Your task to perform on an android device: open device folders in google photos Image 0: 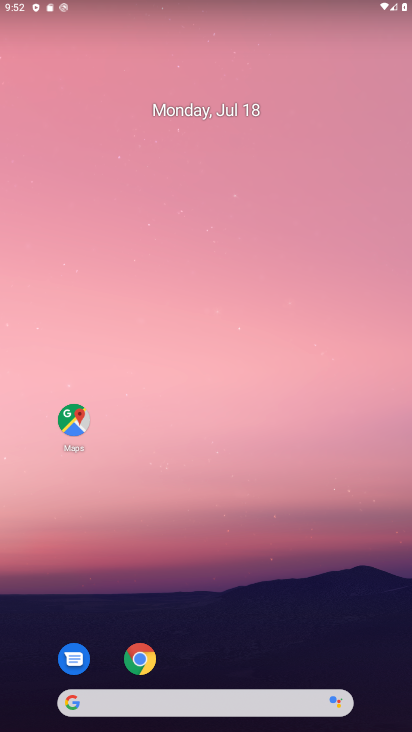
Step 0: drag from (304, 655) to (271, 413)
Your task to perform on an android device: open device folders in google photos Image 1: 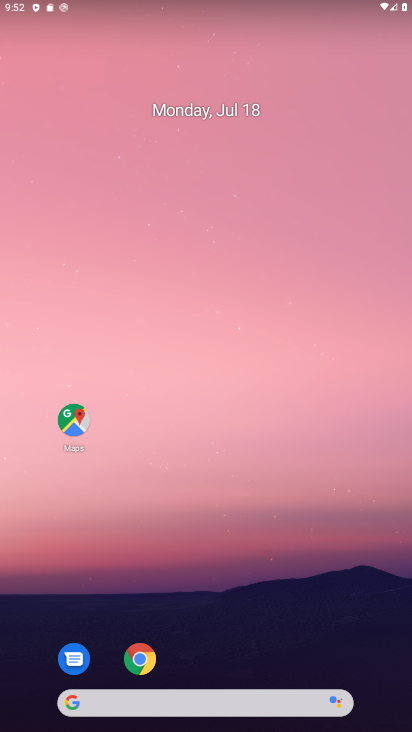
Step 1: drag from (252, 618) to (216, 111)
Your task to perform on an android device: open device folders in google photos Image 2: 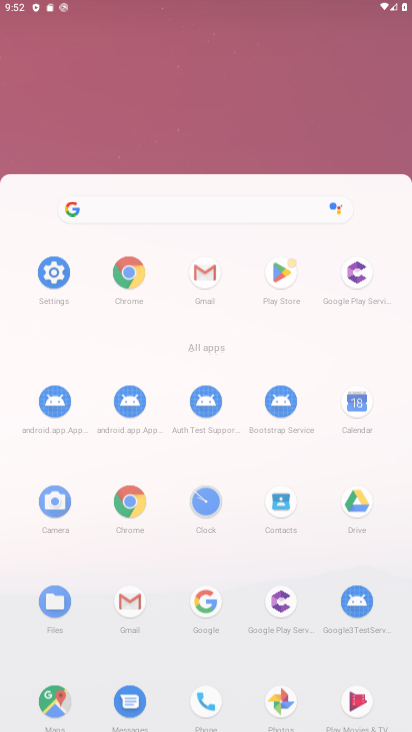
Step 2: drag from (222, 501) to (167, 88)
Your task to perform on an android device: open device folders in google photos Image 3: 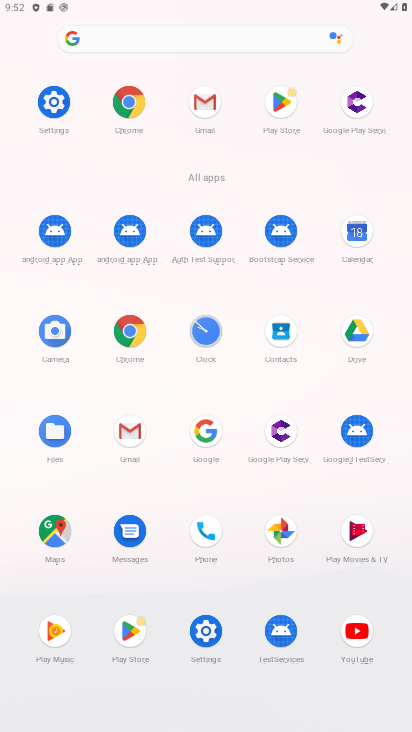
Step 3: drag from (159, 223) to (159, 76)
Your task to perform on an android device: open device folders in google photos Image 4: 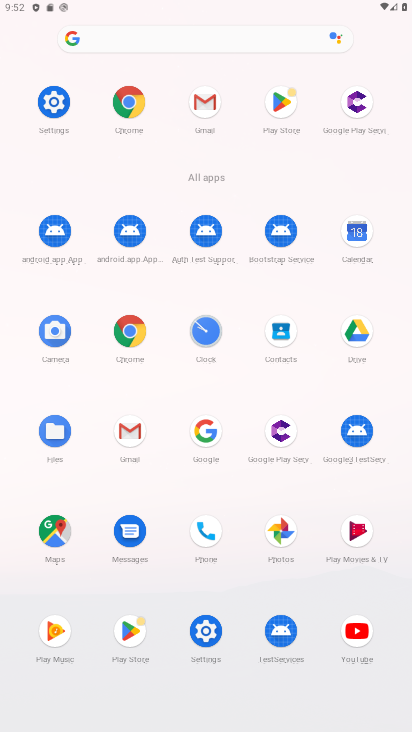
Step 4: click (278, 532)
Your task to perform on an android device: open device folders in google photos Image 5: 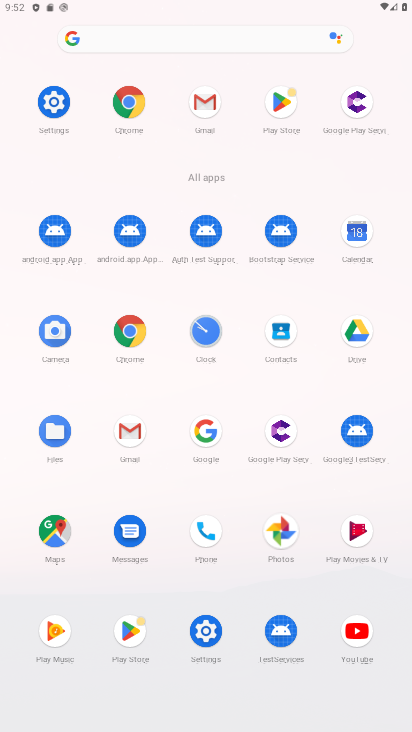
Step 5: click (282, 532)
Your task to perform on an android device: open device folders in google photos Image 6: 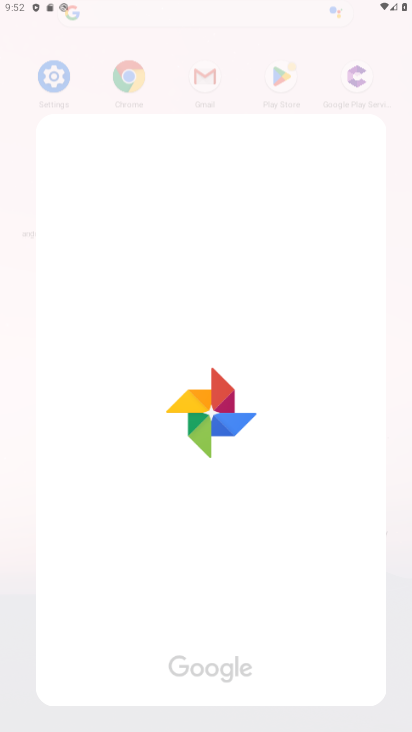
Step 6: click (283, 532)
Your task to perform on an android device: open device folders in google photos Image 7: 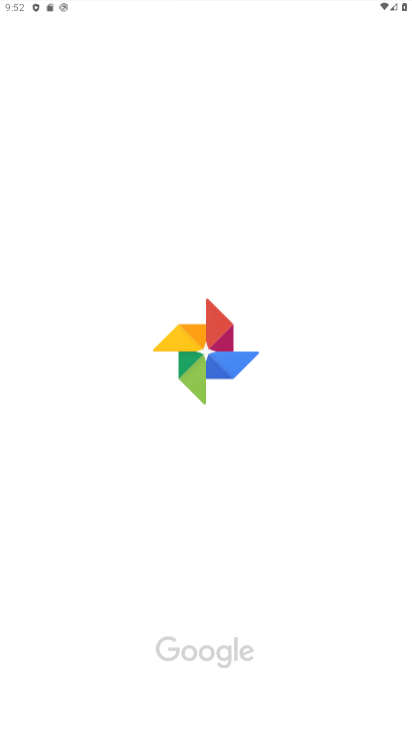
Step 7: click (286, 522)
Your task to perform on an android device: open device folders in google photos Image 8: 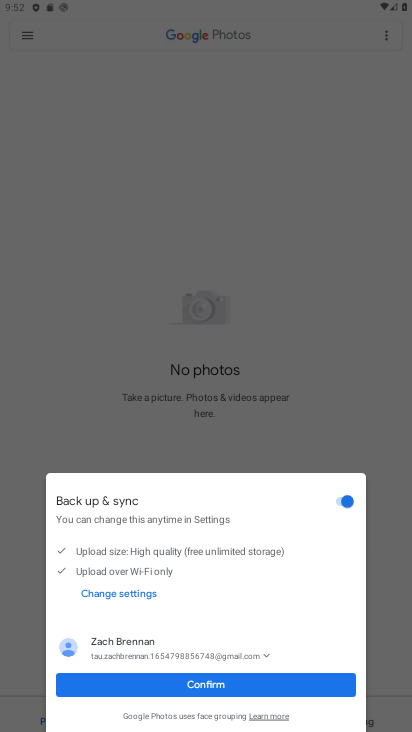
Step 8: click (198, 179)
Your task to perform on an android device: open device folders in google photos Image 9: 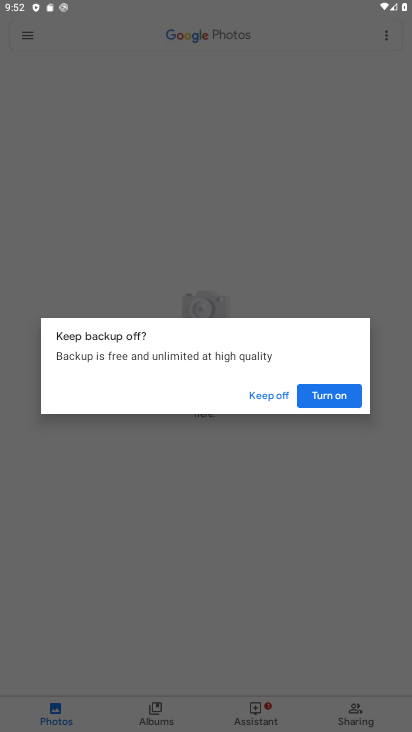
Step 9: click (343, 389)
Your task to perform on an android device: open device folders in google photos Image 10: 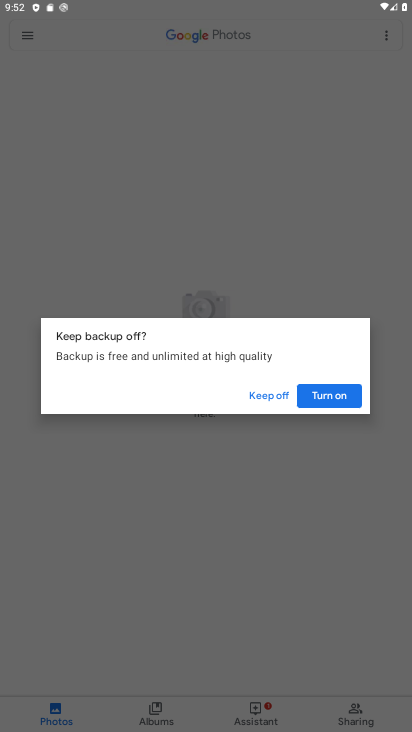
Step 10: click (342, 396)
Your task to perform on an android device: open device folders in google photos Image 11: 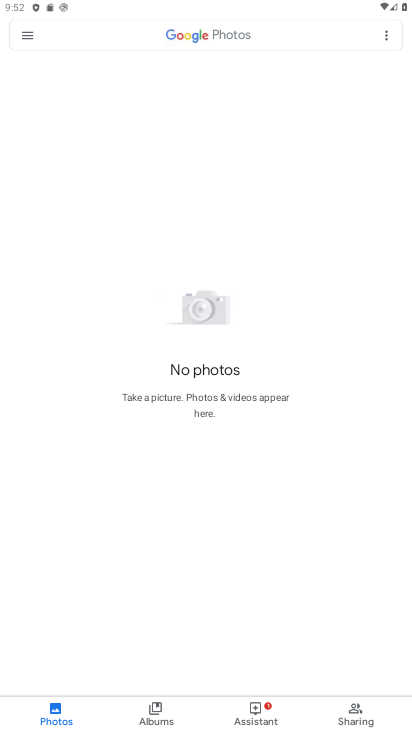
Step 11: click (343, 398)
Your task to perform on an android device: open device folders in google photos Image 12: 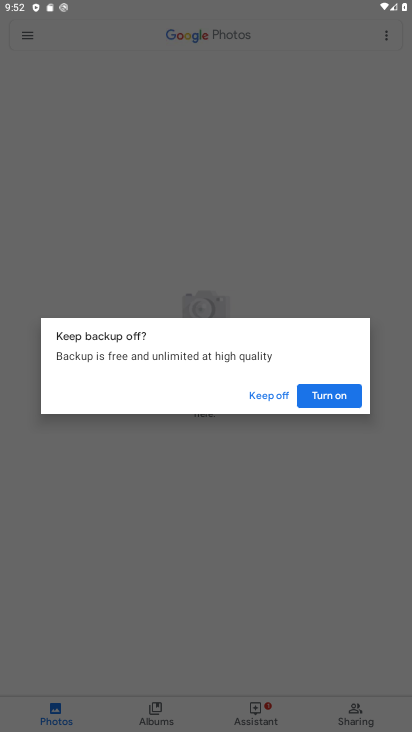
Step 12: click (327, 389)
Your task to perform on an android device: open device folders in google photos Image 13: 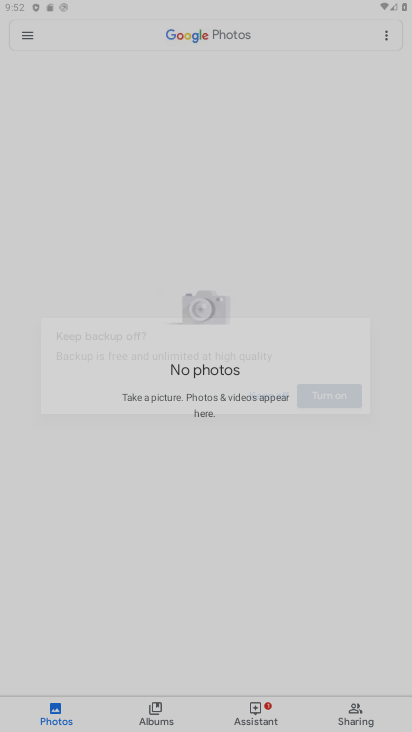
Step 13: click (331, 392)
Your task to perform on an android device: open device folders in google photos Image 14: 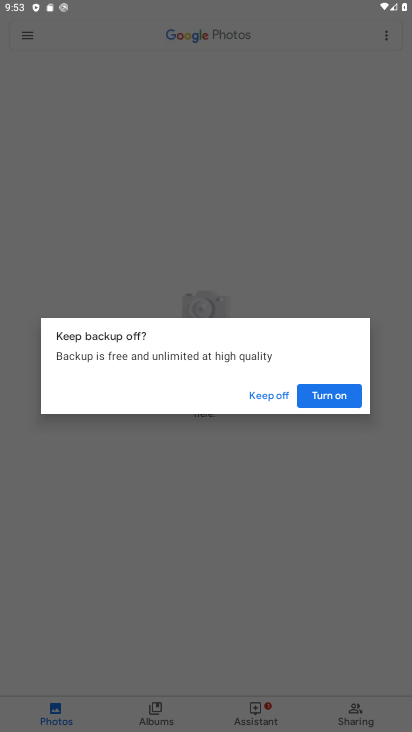
Step 14: press back button
Your task to perform on an android device: open device folders in google photos Image 15: 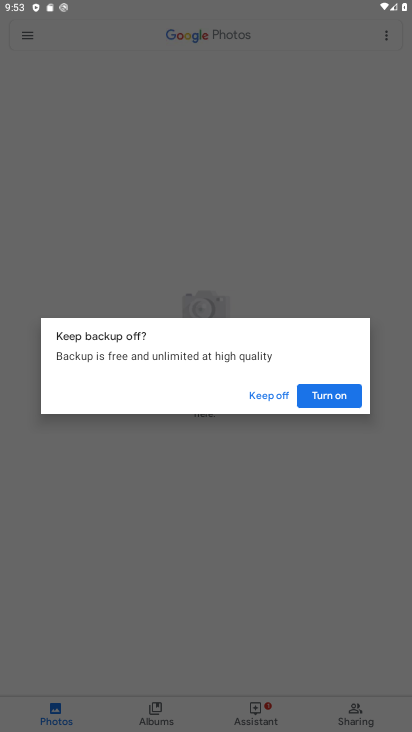
Step 15: click (333, 394)
Your task to perform on an android device: open device folders in google photos Image 16: 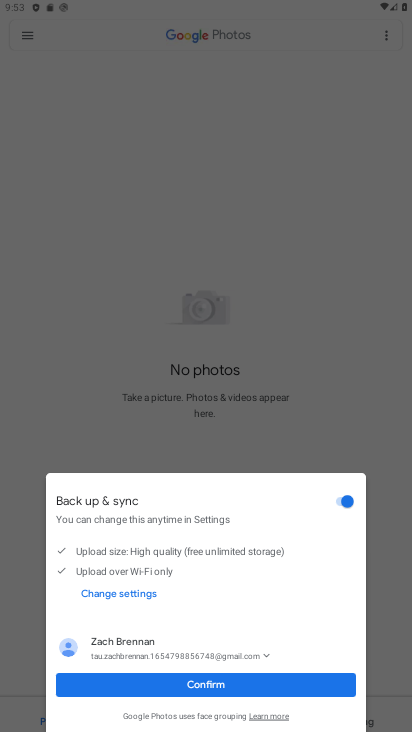
Step 16: drag from (35, 34) to (88, 252)
Your task to perform on an android device: open device folders in google photos Image 17: 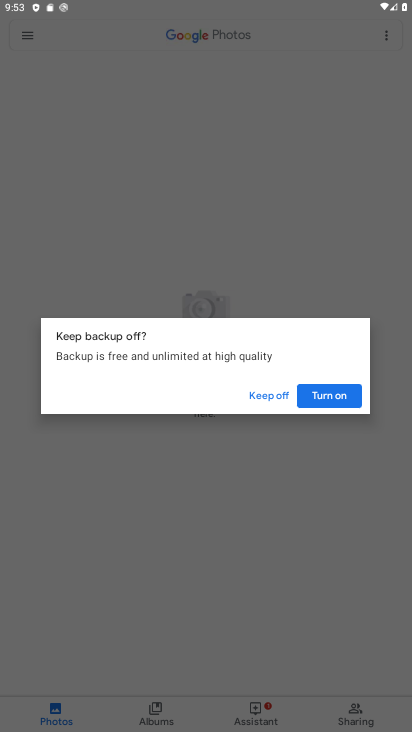
Step 17: click (185, 694)
Your task to perform on an android device: open device folders in google photos Image 18: 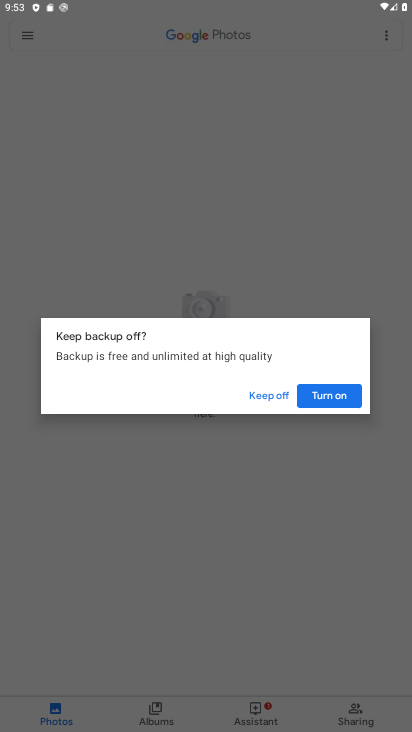
Step 18: click (260, 380)
Your task to perform on an android device: open device folders in google photos Image 19: 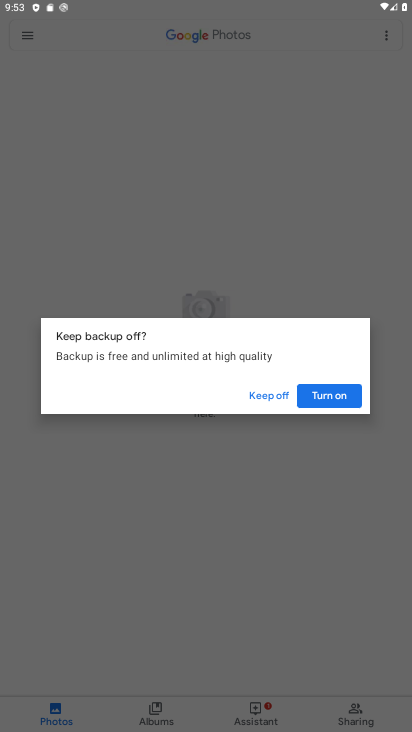
Step 19: click (259, 389)
Your task to perform on an android device: open device folders in google photos Image 20: 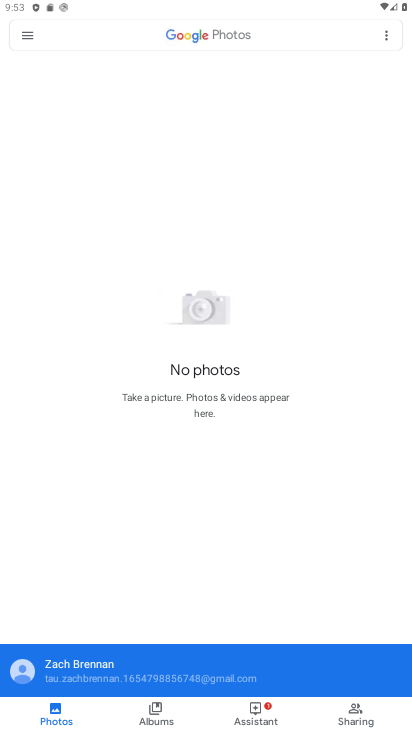
Step 20: drag from (22, 29) to (155, 445)
Your task to perform on an android device: open device folders in google photos Image 21: 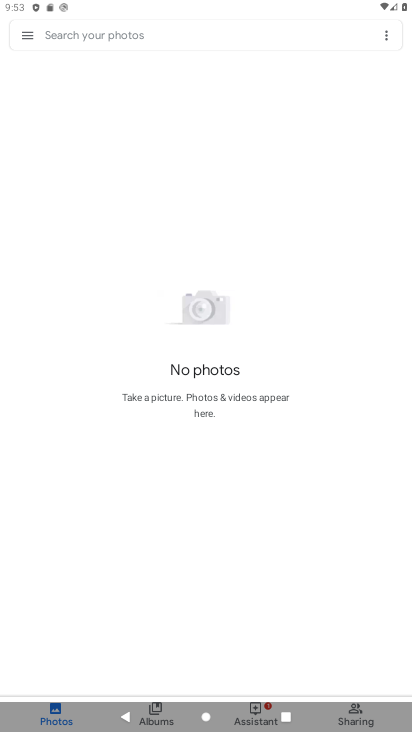
Step 21: drag from (31, 37) to (133, 369)
Your task to perform on an android device: open device folders in google photos Image 22: 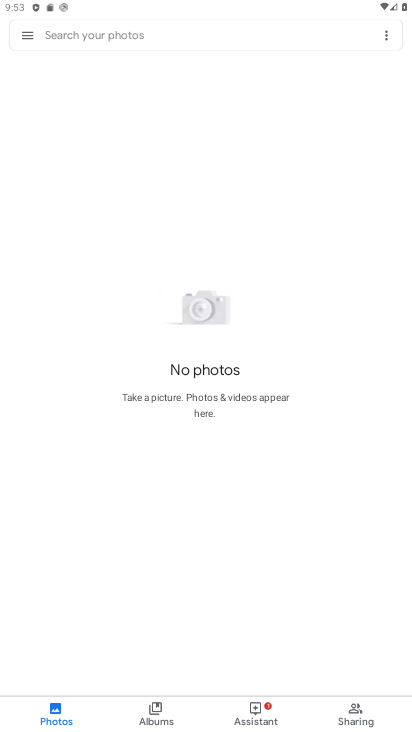
Step 22: drag from (21, 29) to (114, 230)
Your task to perform on an android device: open device folders in google photos Image 23: 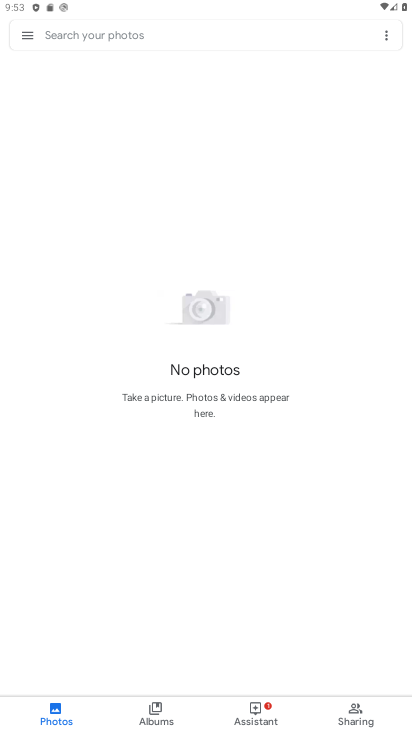
Step 23: drag from (26, 34) to (87, 209)
Your task to perform on an android device: open device folders in google photos Image 24: 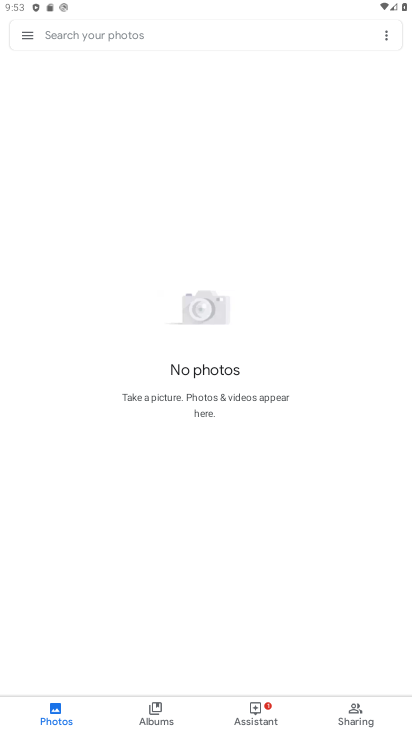
Step 24: click (24, 26)
Your task to perform on an android device: open device folders in google photos Image 25: 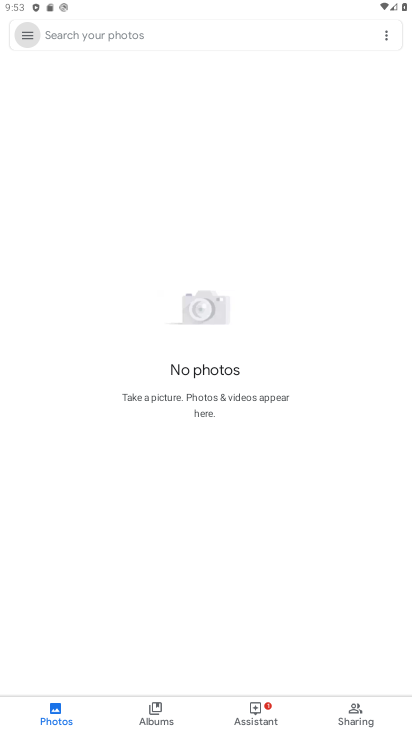
Step 25: click (24, 29)
Your task to perform on an android device: open device folders in google photos Image 26: 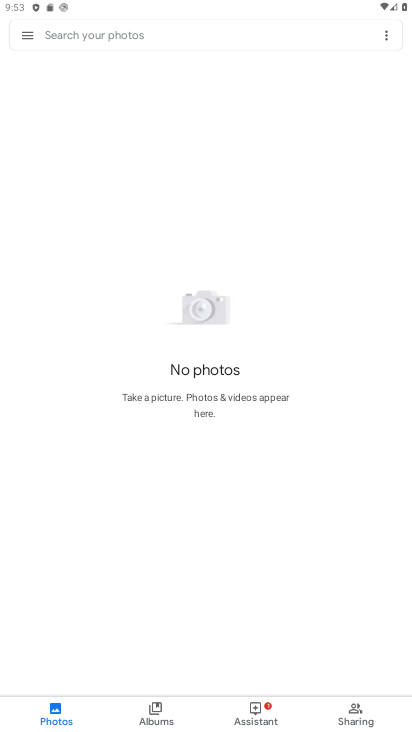
Step 26: click (28, 39)
Your task to perform on an android device: open device folders in google photos Image 27: 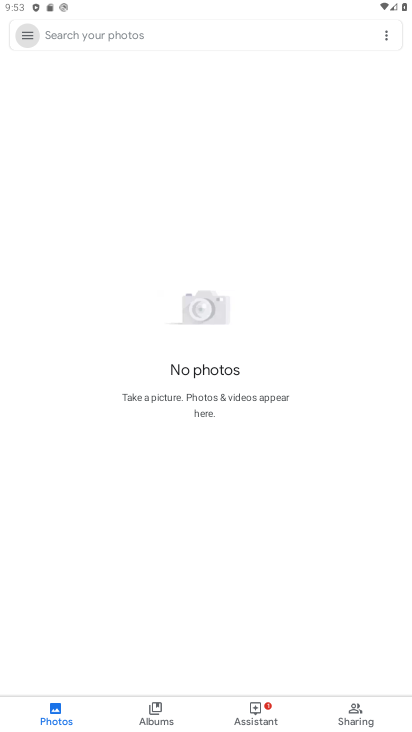
Step 27: click (28, 39)
Your task to perform on an android device: open device folders in google photos Image 28: 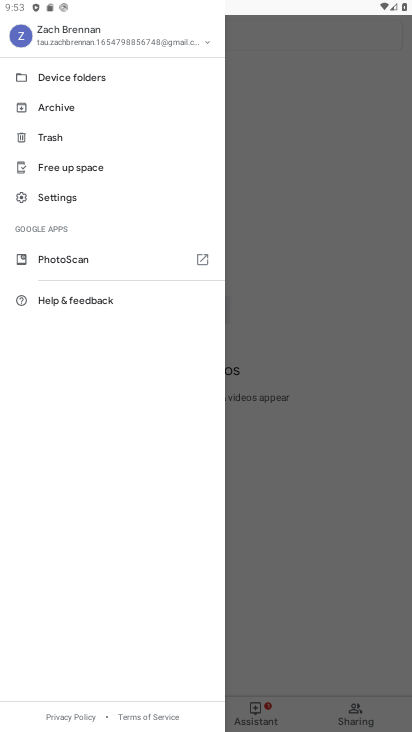
Step 28: click (66, 78)
Your task to perform on an android device: open device folders in google photos Image 29: 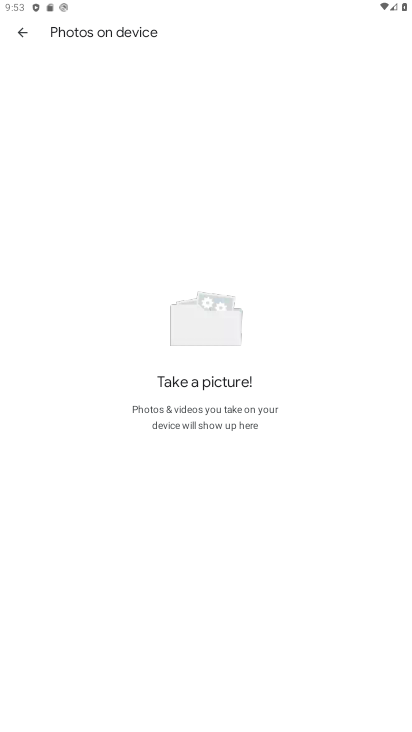
Step 29: task complete